Your task to perform on an android device: Is it going to rain tomorrow? Image 0: 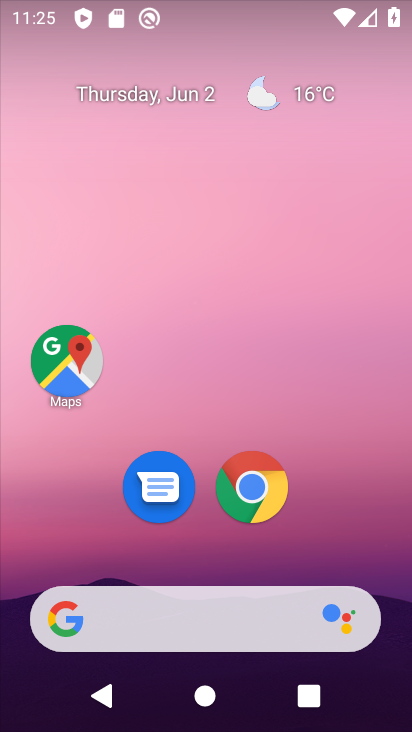
Step 0: click (197, 618)
Your task to perform on an android device: Is it going to rain tomorrow? Image 1: 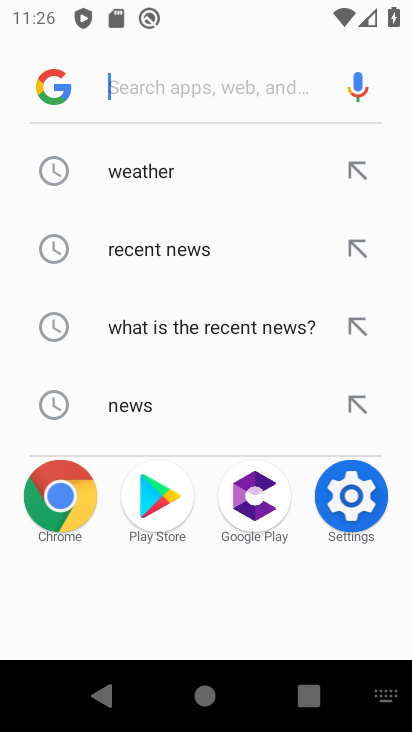
Step 1: type "Is it going to rain tomorrow?"
Your task to perform on an android device: Is it going to rain tomorrow? Image 2: 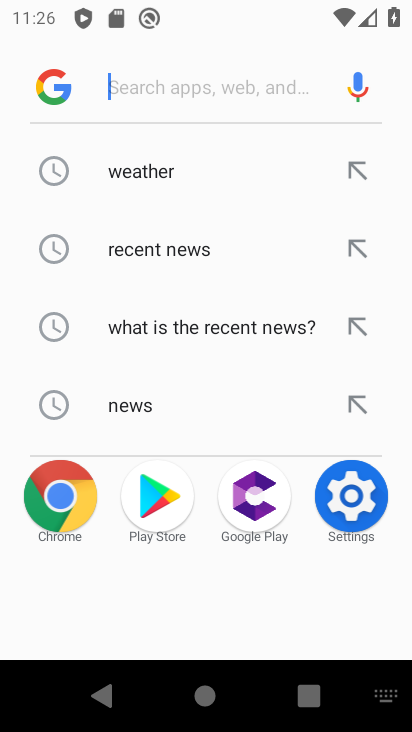
Step 2: click (174, 88)
Your task to perform on an android device: Is it going to rain tomorrow? Image 3: 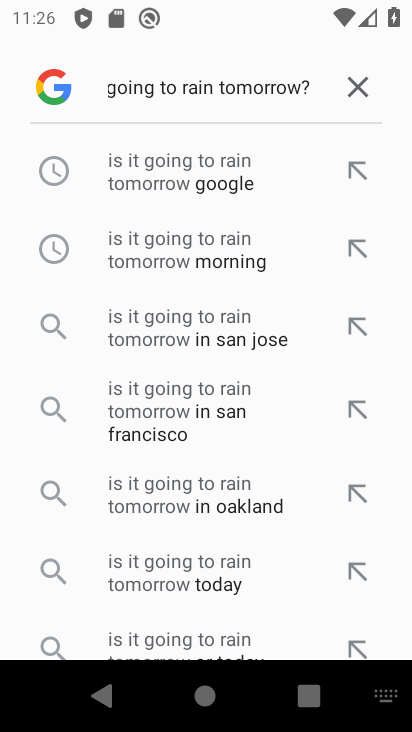
Step 3: click (153, 174)
Your task to perform on an android device: Is it going to rain tomorrow? Image 4: 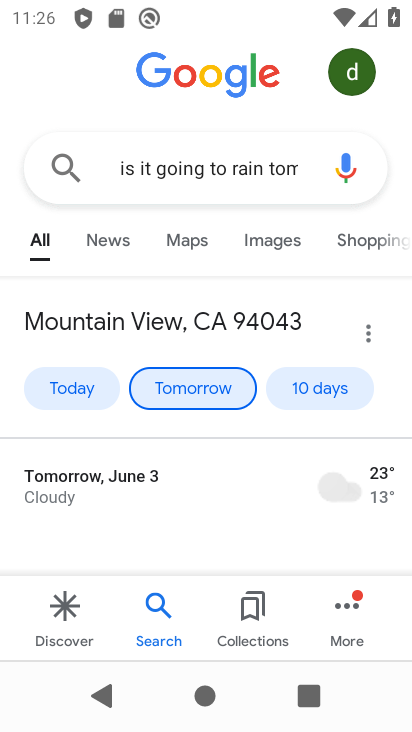
Step 4: task complete